Your task to perform on an android device: Open location settings Image 0: 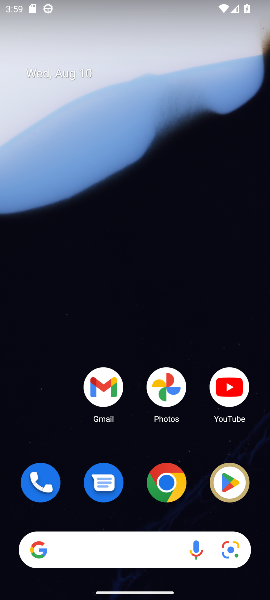
Step 0: drag from (139, 506) to (163, 190)
Your task to perform on an android device: Open location settings Image 1: 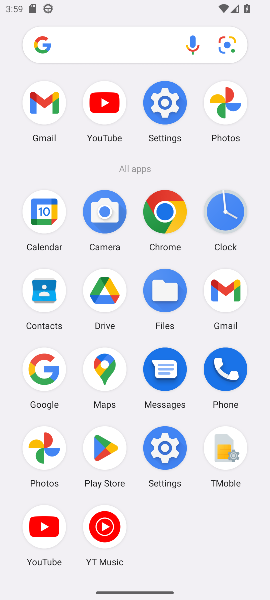
Step 1: click (158, 452)
Your task to perform on an android device: Open location settings Image 2: 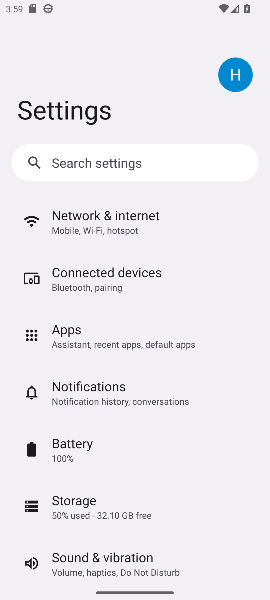
Step 2: drag from (126, 537) to (115, 2)
Your task to perform on an android device: Open location settings Image 3: 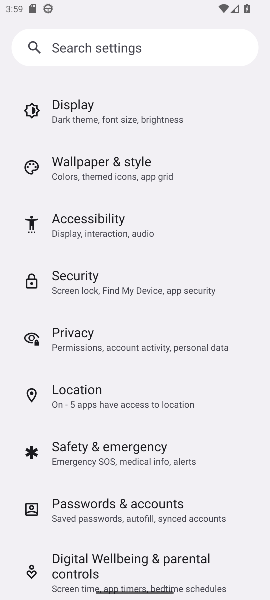
Step 3: click (75, 395)
Your task to perform on an android device: Open location settings Image 4: 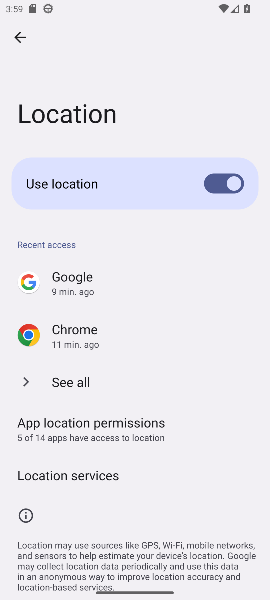
Step 4: task complete